Your task to perform on an android device: check google app version Image 0: 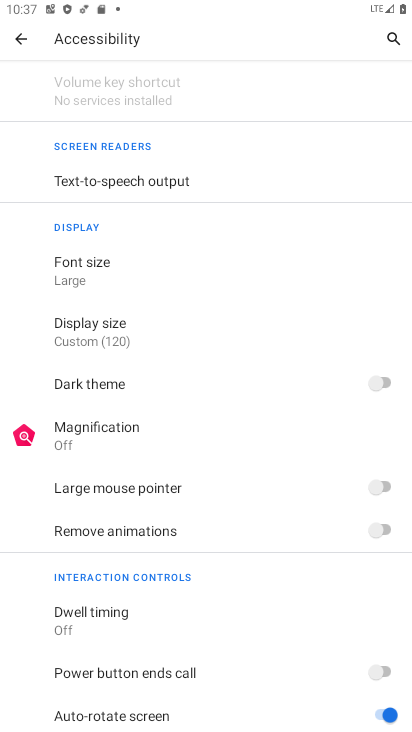
Step 0: press home button
Your task to perform on an android device: check google app version Image 1: 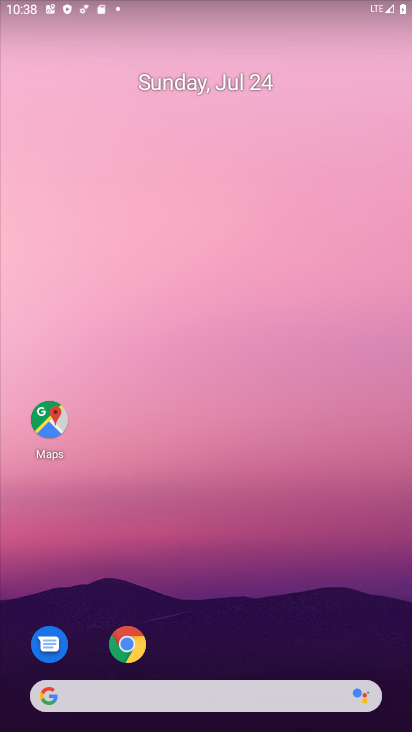
Step 1: drag from (92, 543) to (292, 206)
Your task to perform on an android device: check google app version Image 2: 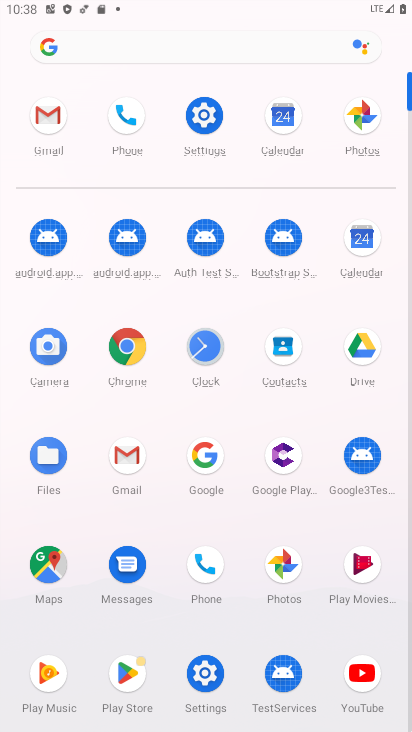
Step 2: click (377, 440)
Your task to perform on an android device: check google app version Image 3: 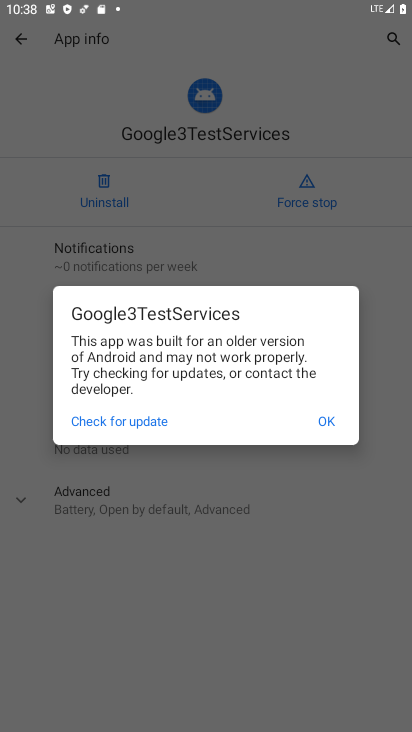
Step 3: click (336, 414)
Your task to perform on an android device: check google app version Image 4: 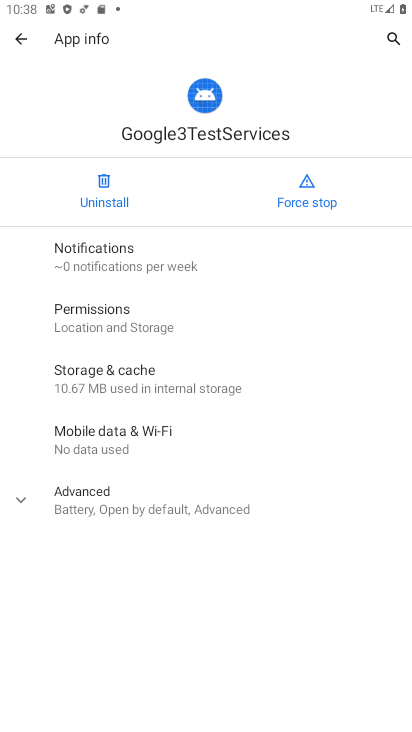
Step 4: click (160, 488)
Your task to perform on an android device: check google app version Image 5: 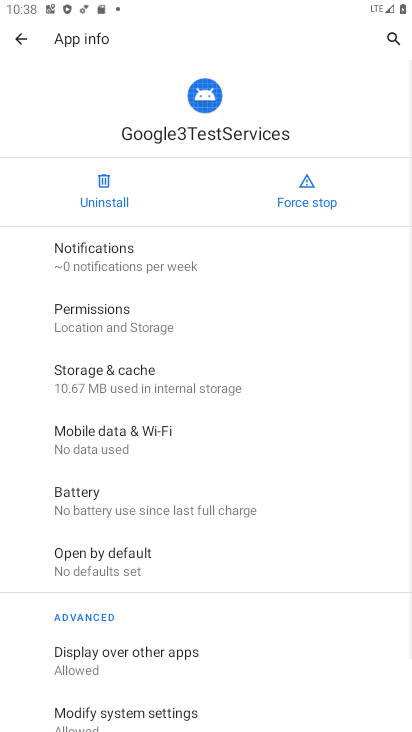
Step 5: task complete